Your task to perform on an android device: turn off notifications settings in the gmail app Image 0: 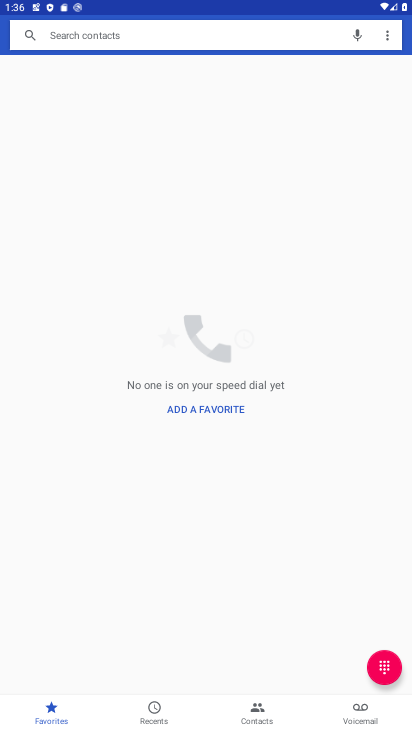
Step 0: press home button
Your task to perform on an android device: turn off notifications settings in the gmail app Image 1: 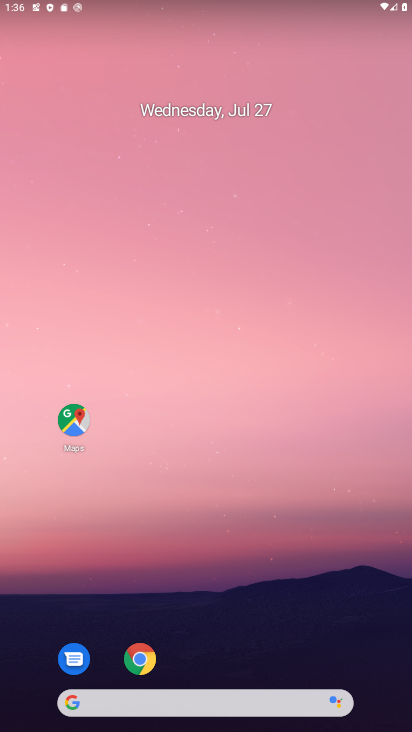
Step 1: drag from (260, 585) to (261, 32)
Your task to perform on an android device: turn off notifications settings in the gmail app Image 2: 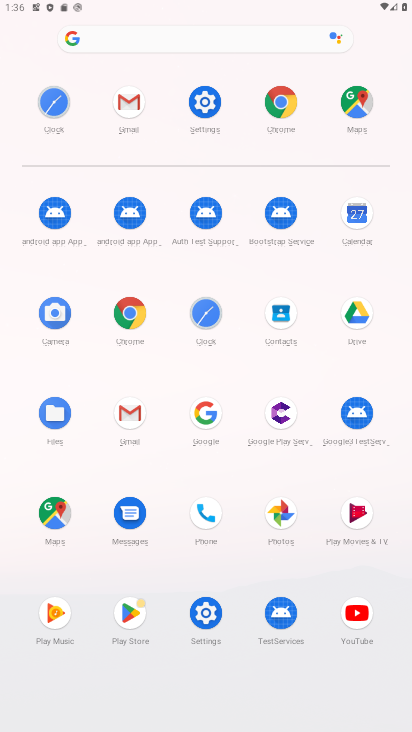
Step 2: click (123, 101)
Your task to perform on an android device: turn off notifications settings in the gmail app Image 3: 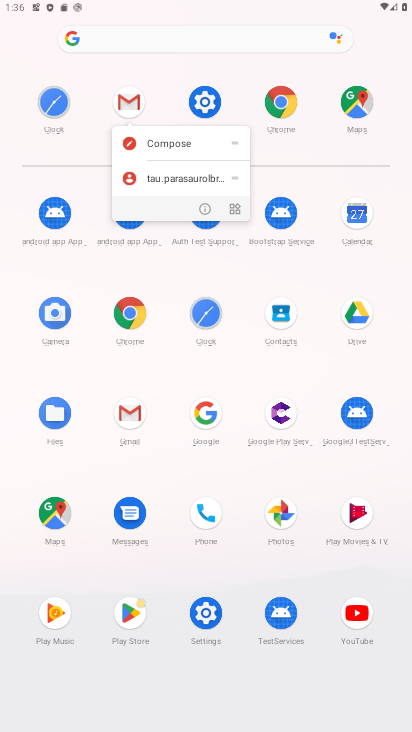
Step 3: click (123, 101)
Your task to perform on an android device: turn off notifications settings in the gmail app Image 4: 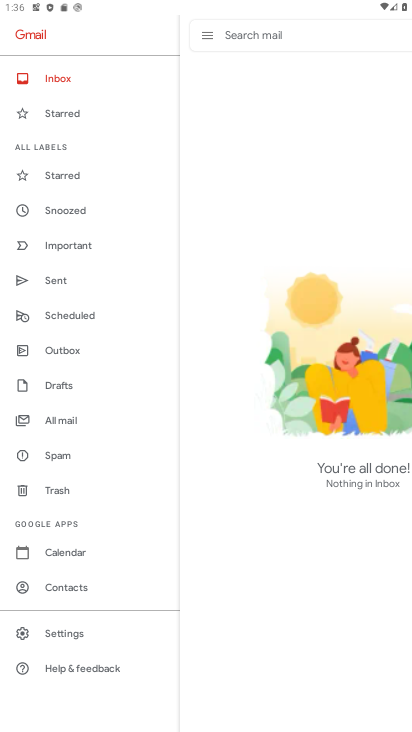
Step 4: click (83, 644)
Your task to perform on an android device: turn off notifications settings in the gmail app Image 5: 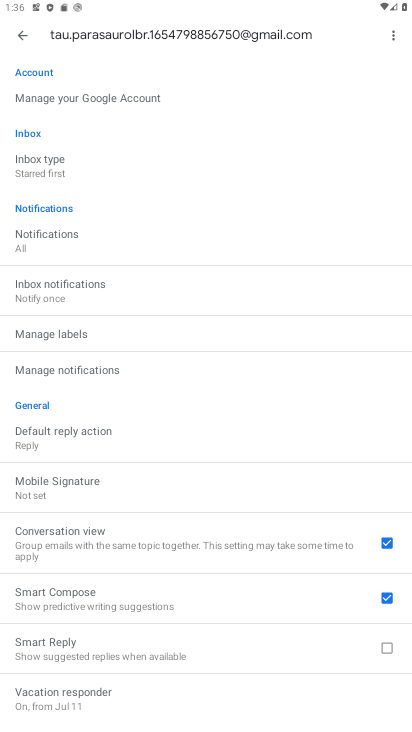
Step 5: click (82, 365)
Your task to perform on an android device: turn off notifications settings in the gmail app Image 6: 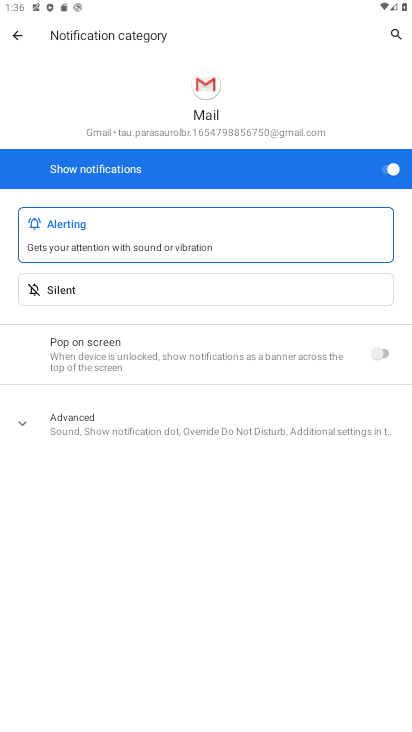
Step 6: click (382, 164)
Your task to perform on an android device: turn off notifications settings in the gmail app Image 7: 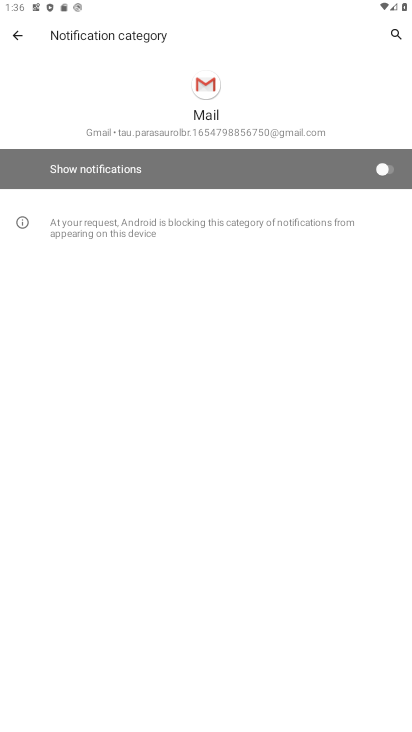
Step 7: task complete